Your task to perform on an android device: move a message to another label in the gmail app Image 0: 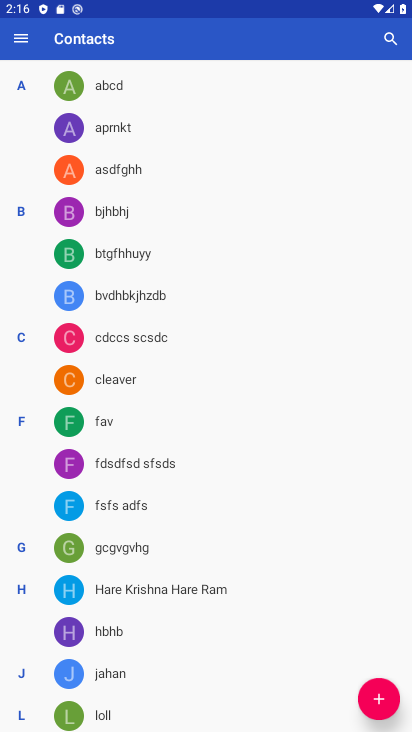
Step 0: task complete